Your task to perform on an android device: Go to Yahoo.com Image 0: 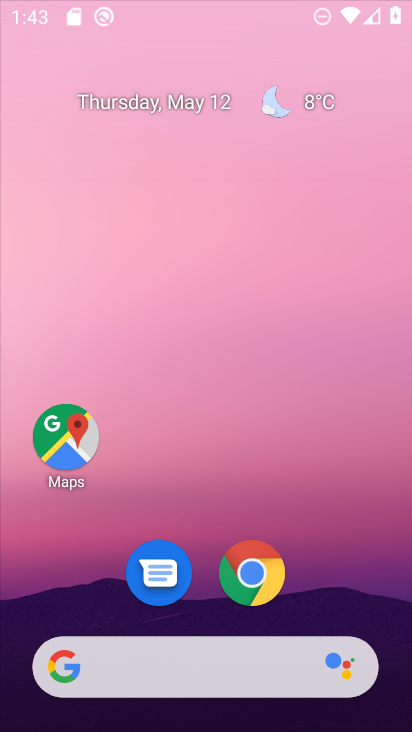
Step 0: click (107, 80)
Your task to perform on an android device: Go to Yahoo.com Image 1: 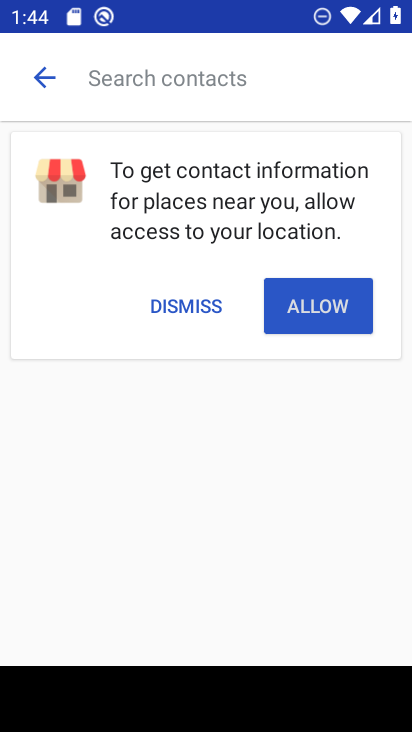
Step 1: click (173, 300)
Your task to perform on an android device: Go to Yahoo.com Image 2: 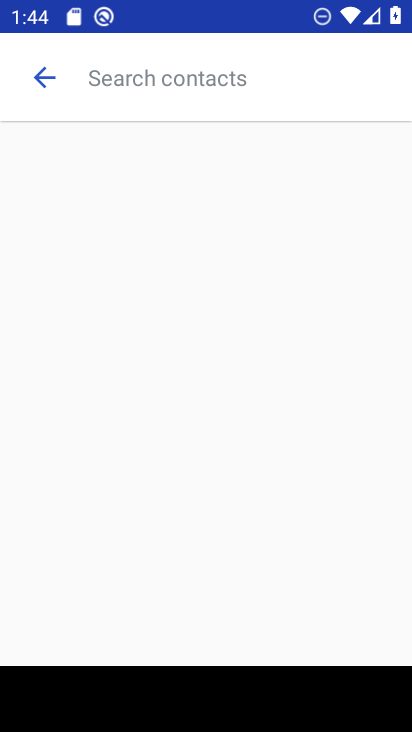
Step 2: click (173, 300)
Your task to perform on an android device: Go to Yahoo.com Image 3: 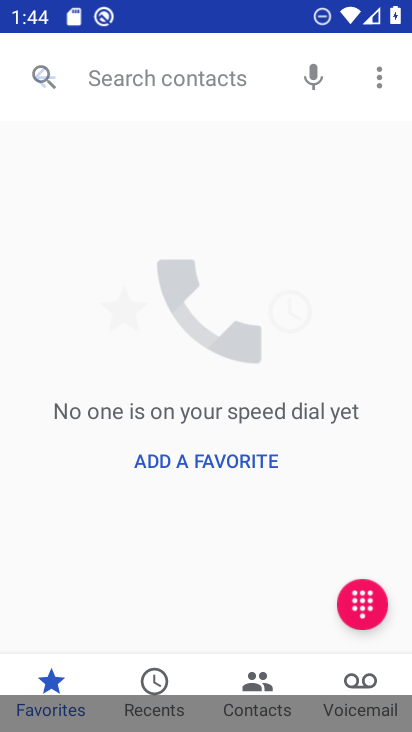
Step 3: click (173, 300)
Your task to perform on an android device: Go to Yahoo.com Image 4: 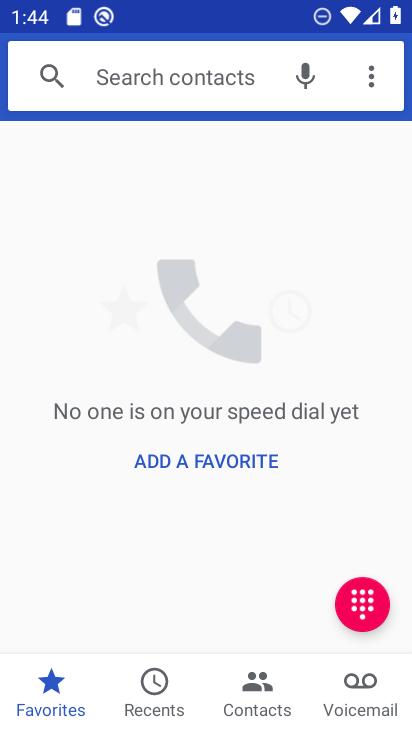
Step 4: press back button
Your task to perform on an android device: Go to Yahoo.com Image 5: 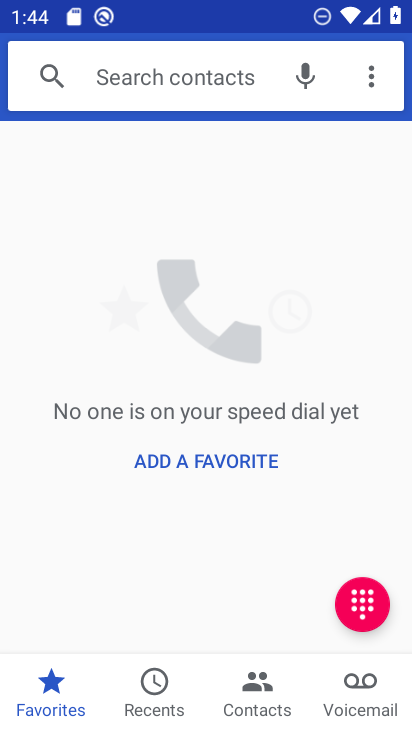
Step 5: press back button
Your task to perform on an android device: Go to Yahoo.com Image 6: 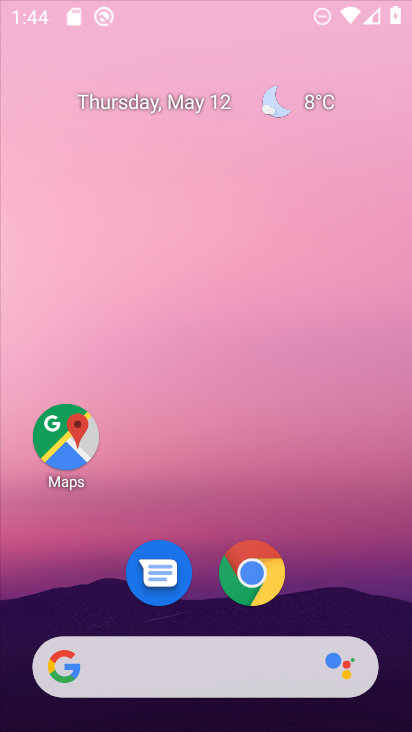
Step 6: press back button
Your task to perform on an android device: Go to Yahoo.com Image 7: 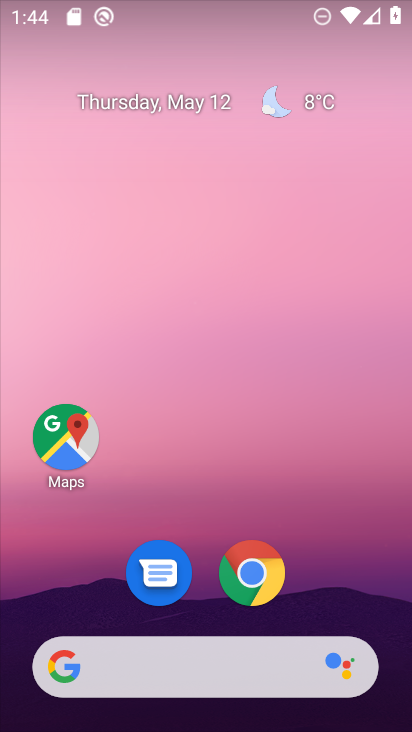
Step 7: press back button
Your task to perform on an android device: Go to Yahoo.com Image 8: 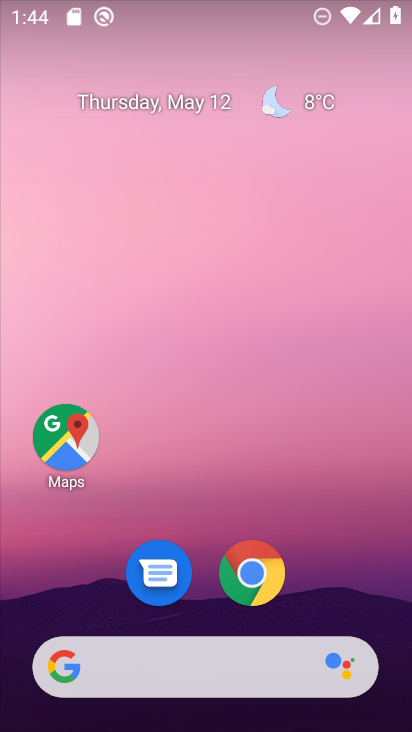
Step 8: drag from (264, 523) to (99, 0)
Your task to perform on an android device: Go to Yahoo.com Image 9: 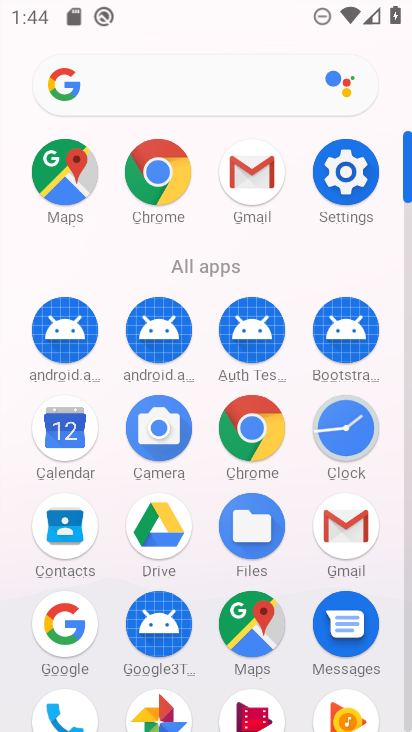
Step 9: click (156, 188)
Your task to perform on an android device: Go to Yahoo.com Image 10: 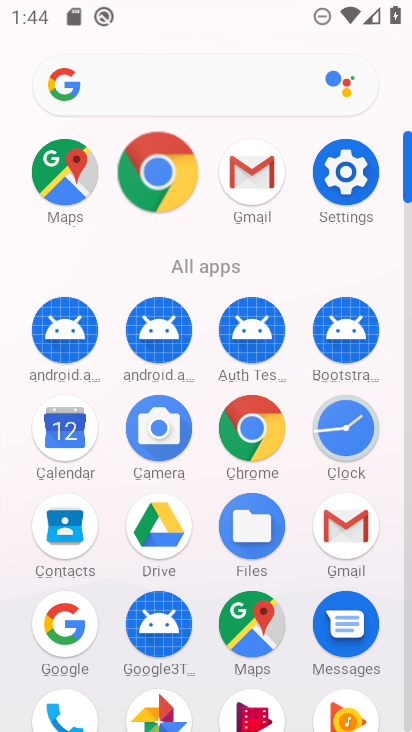
Step 10: click (156, 188)
Your task to perform on an android device: Go to Yahoo.com Image 11: 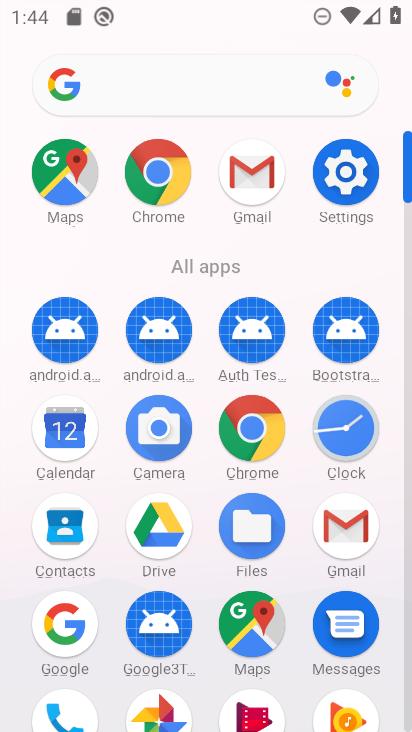
Step 11: click (156, 188)
Your task to perform on an android device: Go to Yahoo.com Image 12: 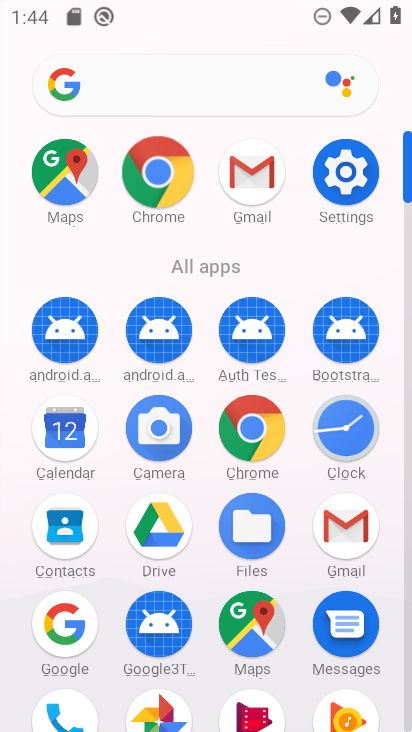
Step 12: click (156, 188)
Your task to perform on an android device: Go to Yahoo.com Image 13: 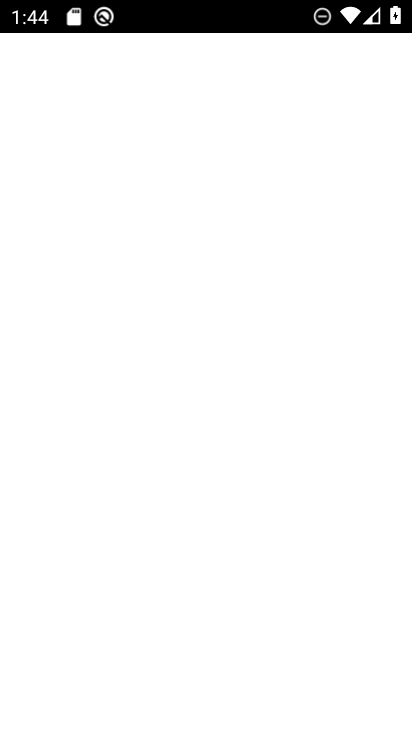
Step 13: click (156, 188)
Your task to perform on an android device: Go to Yahoo.com Image 14: 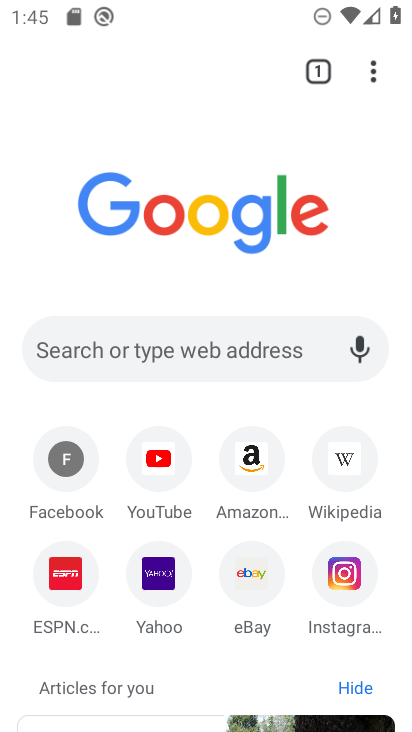
Step 14: click (162, 580)
Your task to perform on an android device: Go to Yahoo.com Image 15: 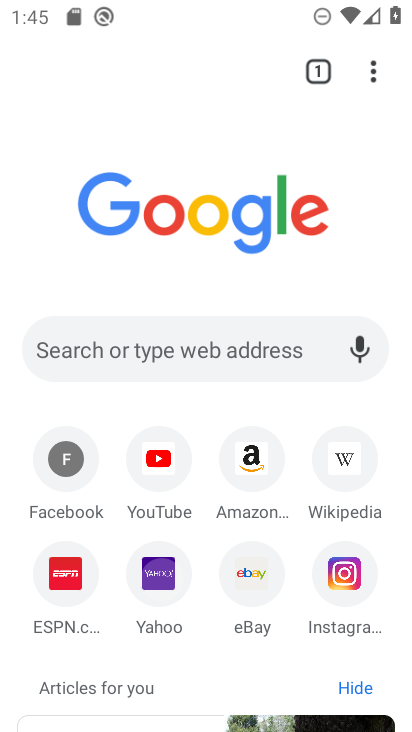
Step 15: click (162, 580)
Your task to perform on an android device: Go to Yahoo.com Image 16: 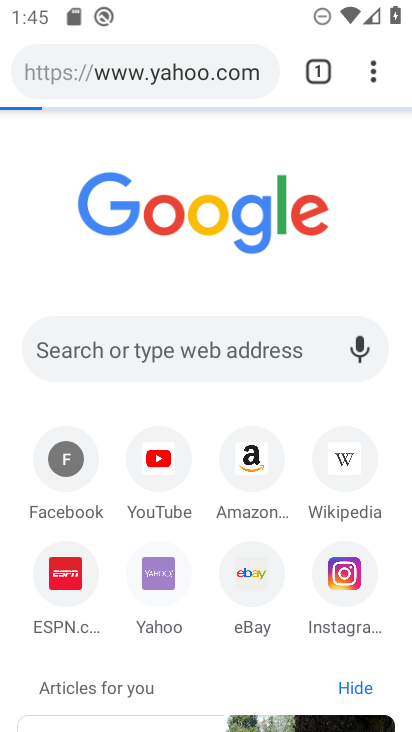
Step 16: click (162, 580)
Your task to perform on an android device: Go to Yahoo.com Image 17: 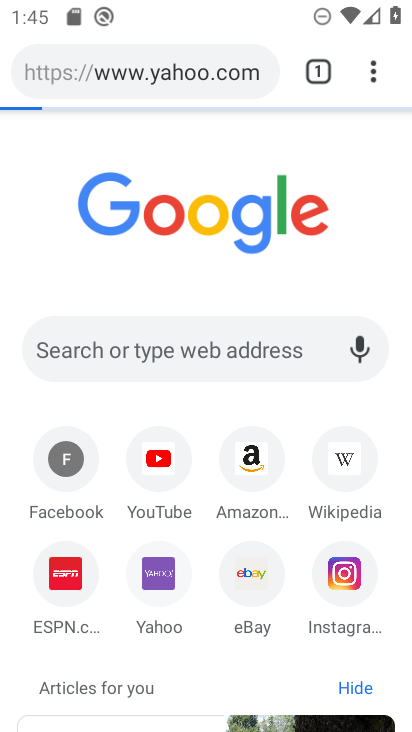
Step 17: click (162, 580)
Your task to perform on an android device: Go to Yahoo.com Image 18: 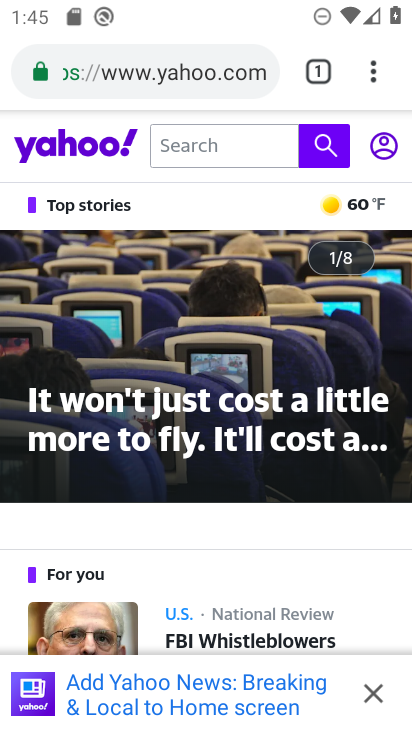
Step 18: task complete